Your task to perform on an android device: Search for "logitech g pro" on newegg.com, select the first entry, and add it to the cart. Image 0: 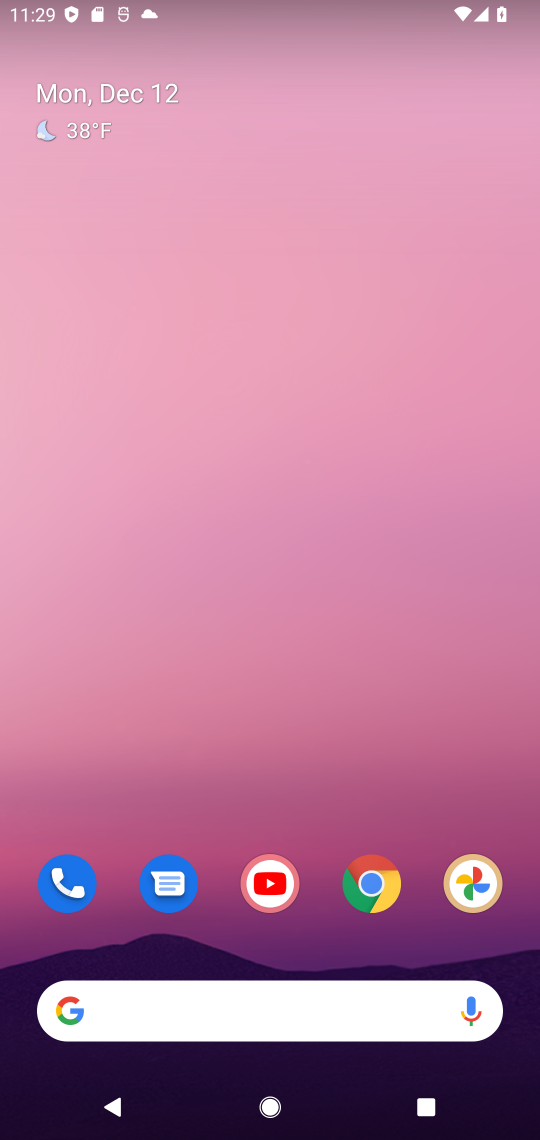
Step 0: click (295, 1015)
Your task to perform on an android device: Search for "logitech g pro" on newegg.com, select the first entry, and add it to the cart. Image 1: 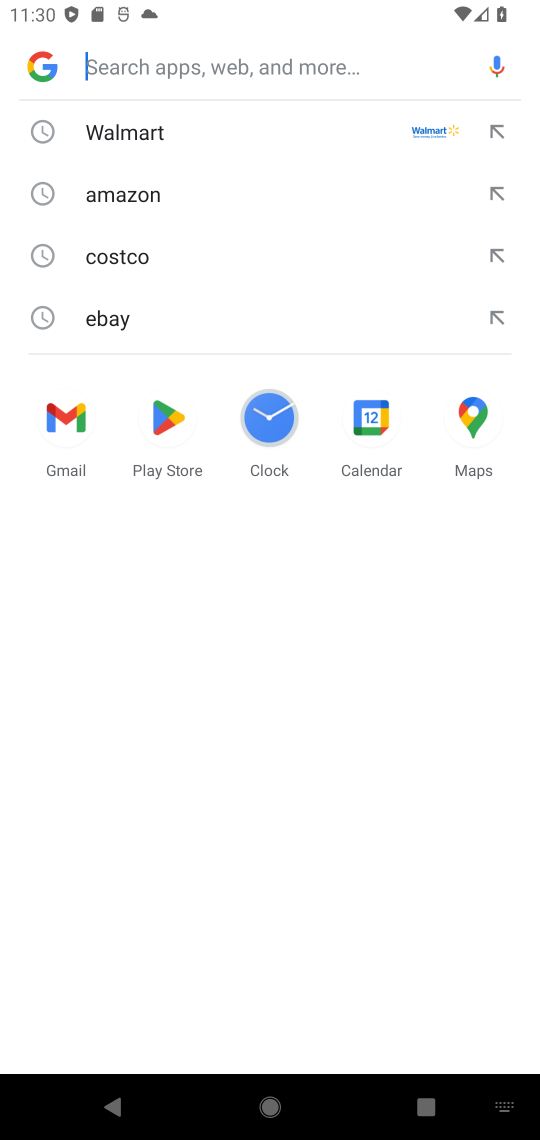
Step 1: press home button
Your task to perform on an android device: Search for "logitech g pro" on newegg.com, select the first entry, and add it to the cart. Image 2: 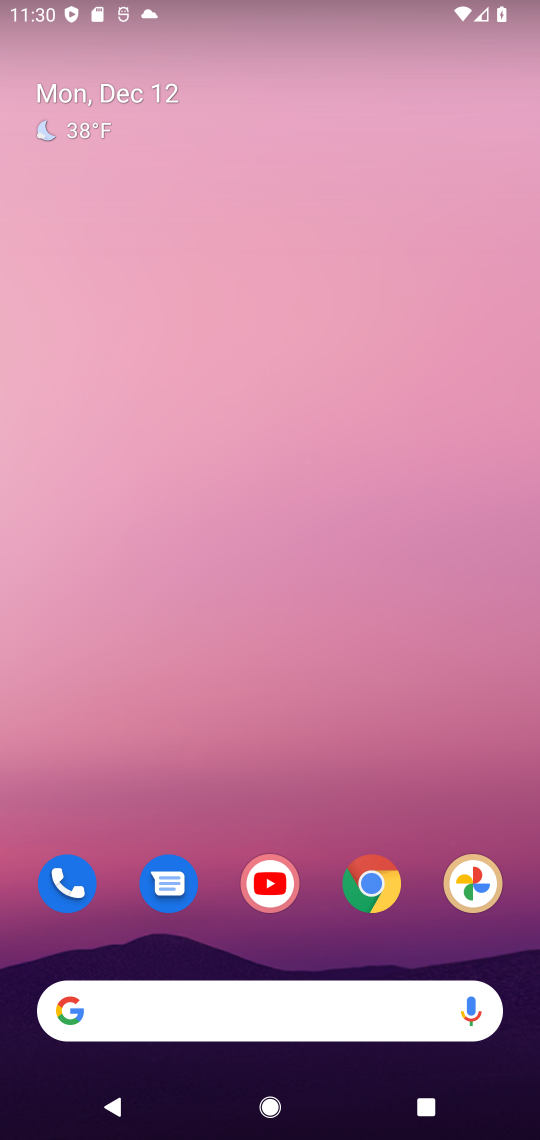
Step 2: drag from (207, 741) to (297, 36)
Your task to perform on an android device: Search for "logitech g pro" on newegg.com, select the first entry, and add it to the cart. Image 3: 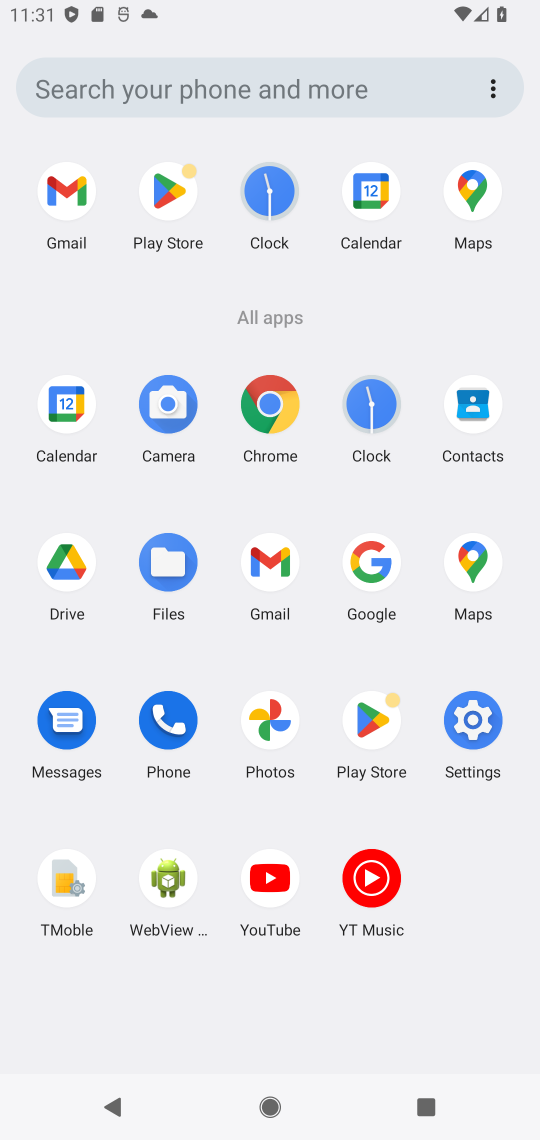
Step 3: click (352, 600)
Your task to perform on an android device: Search for "logitech g pro" on newegg.com, select the first entry, and add it to the cart. Image 4: 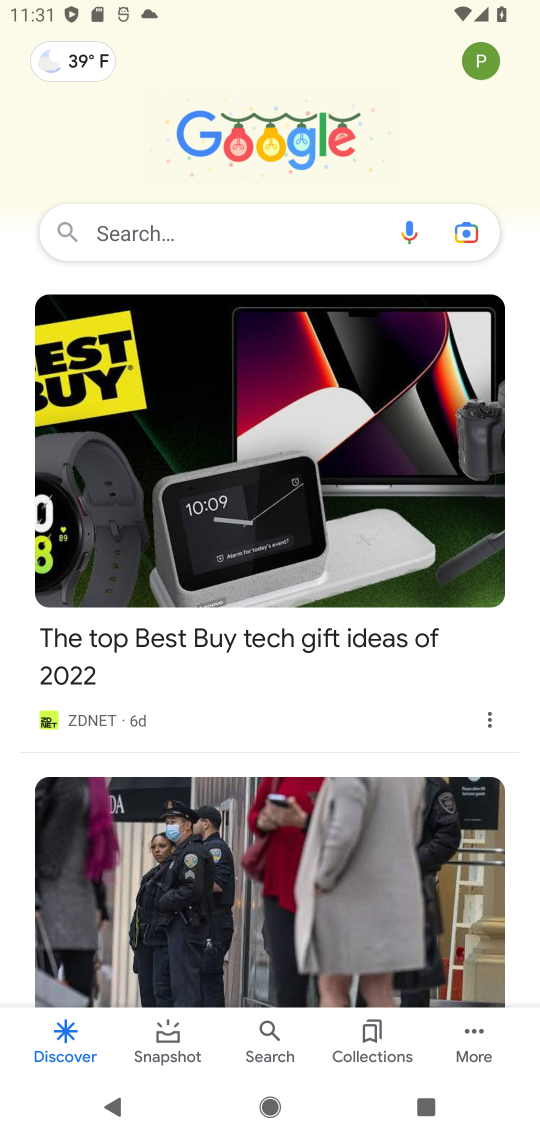
Step 4: click (253, 242)
Your task to perform on an android device: Search for "logitech g pro" on newegg.com, select the first entry, and add it to the cart. Image 5: 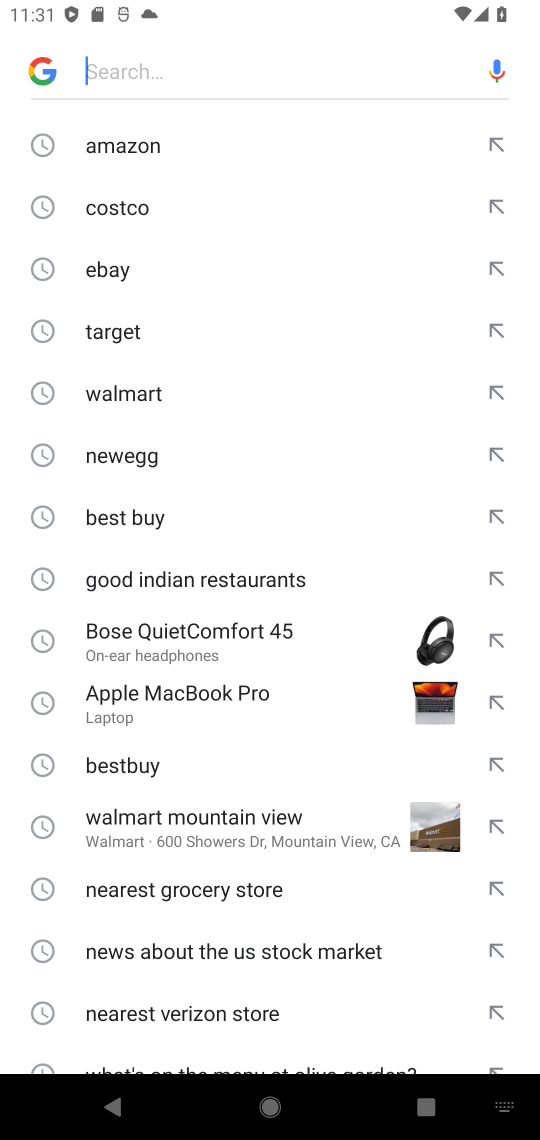
Step 5: type " newegg.com"
Your task to perform on an android device: Search for "logitech g pro" on newegg.com, select the first entry, and add it to the cart. Image 6: 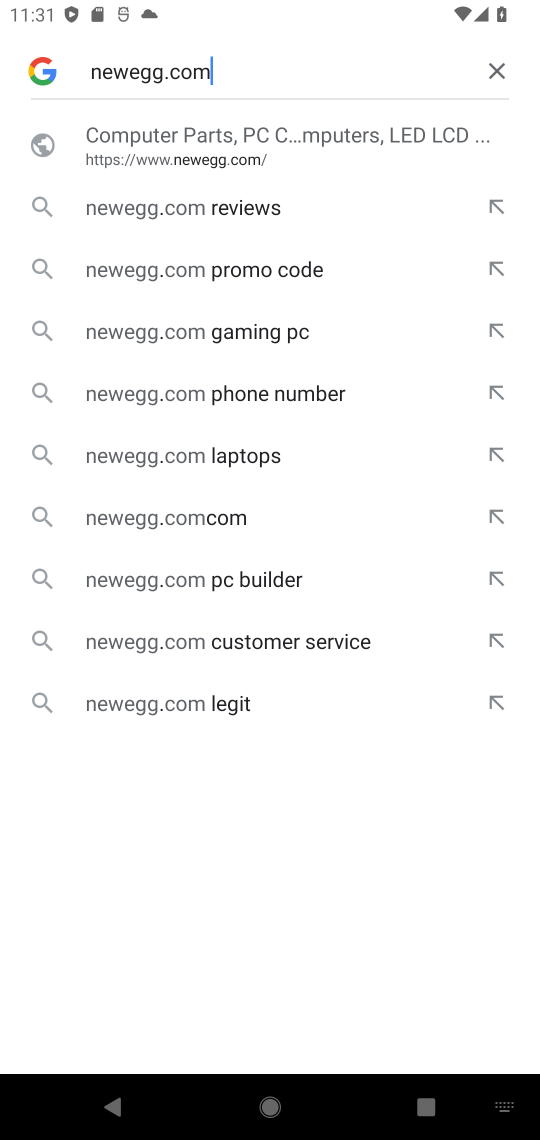
Step 6: click (223, 150)
Your task to perform on an android device: Search for "logitech g pro" on newegg.com, select the first entry, and add it to the cart. Image 7: 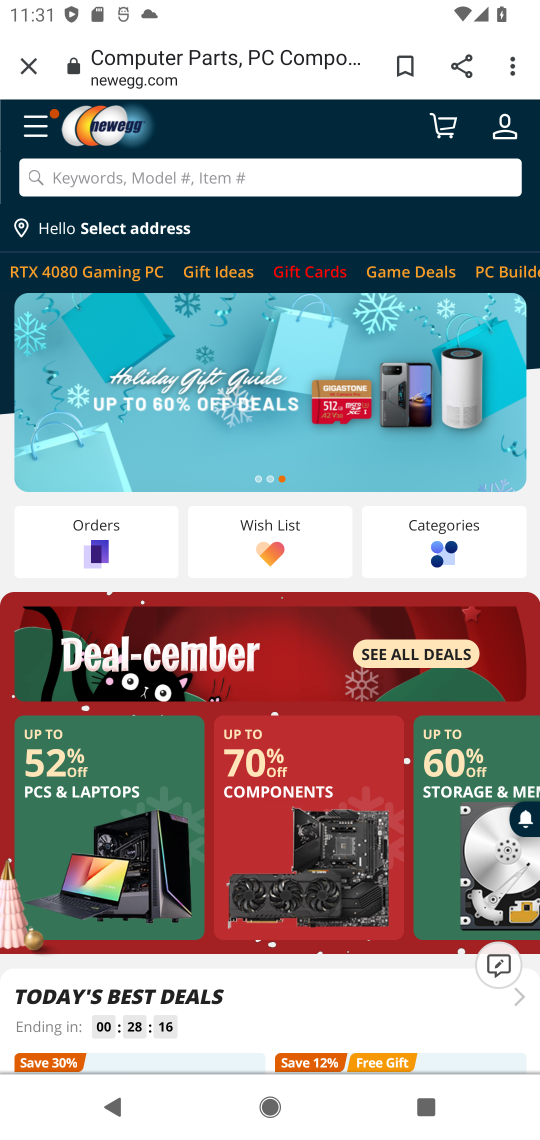
Step 7: click (190, 181)
Your task to perform on an android device: Search for "logitech g pro" on newegg.com, select the first entry, and add it to the cart. Image 8: 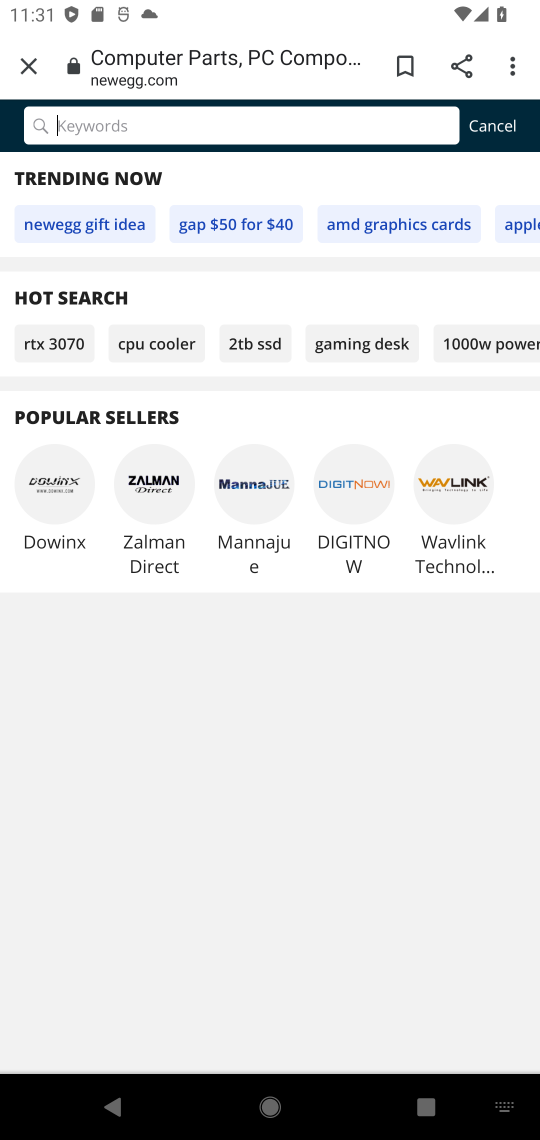
Step 8: type "logitech g pro"
Your task to perform on an android device: Search for "logitech g pro" on newegg.com, select the first entry, and add it to the cart. Image 9: 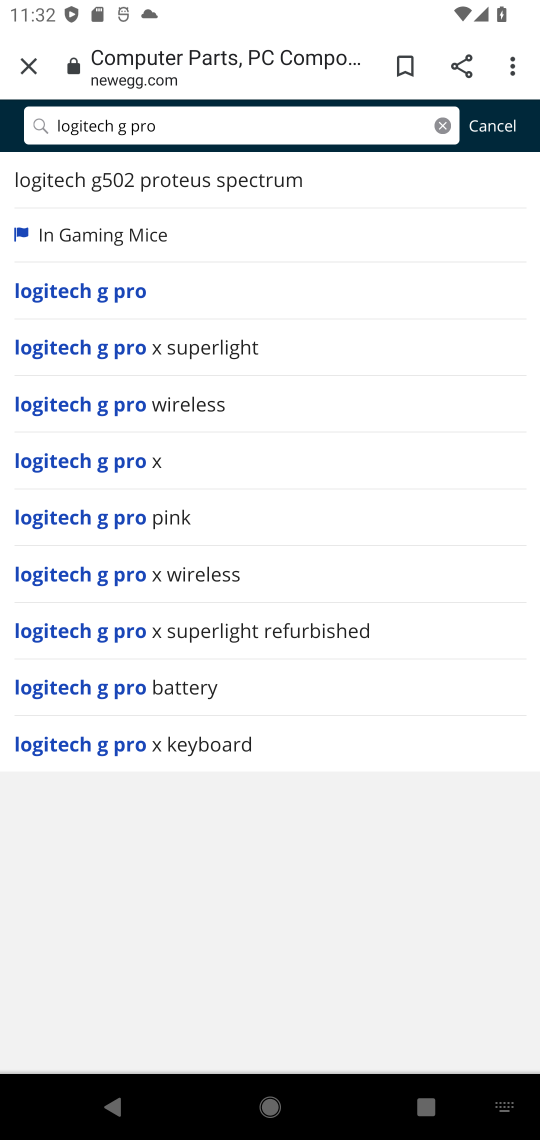
Step 9: click (82, 289)
Your task to perform on an android device: Search for "logitech g pro" on newegg.com, select the first entry, and add it to the cart. Image 10: 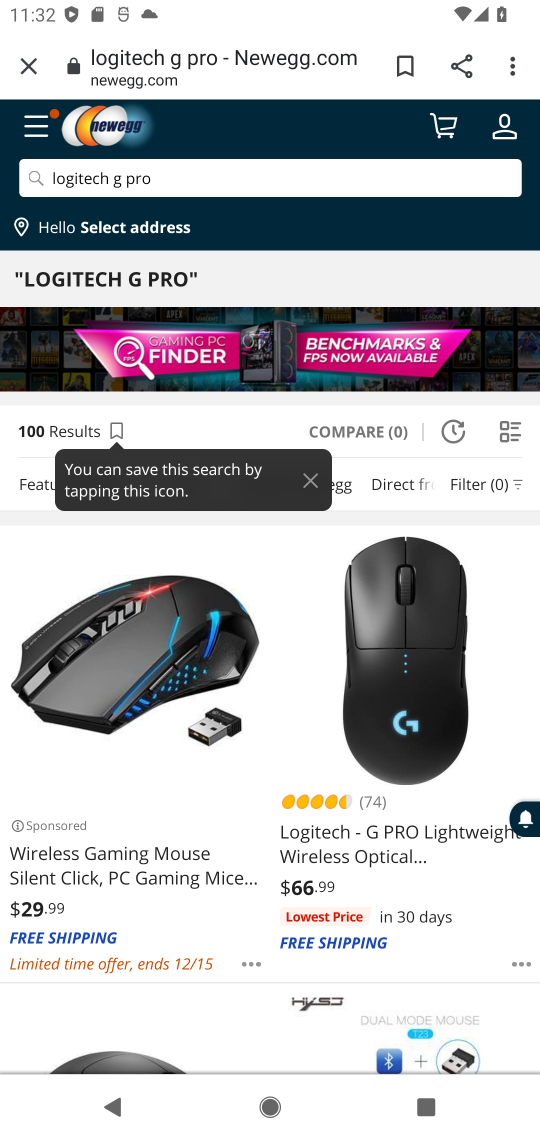
Step 10: click (94, 830)
Your task to perform on an android device: Search for "logitech g pro" on newegg.com, select the first entry, and add it to the cart. Image 11: 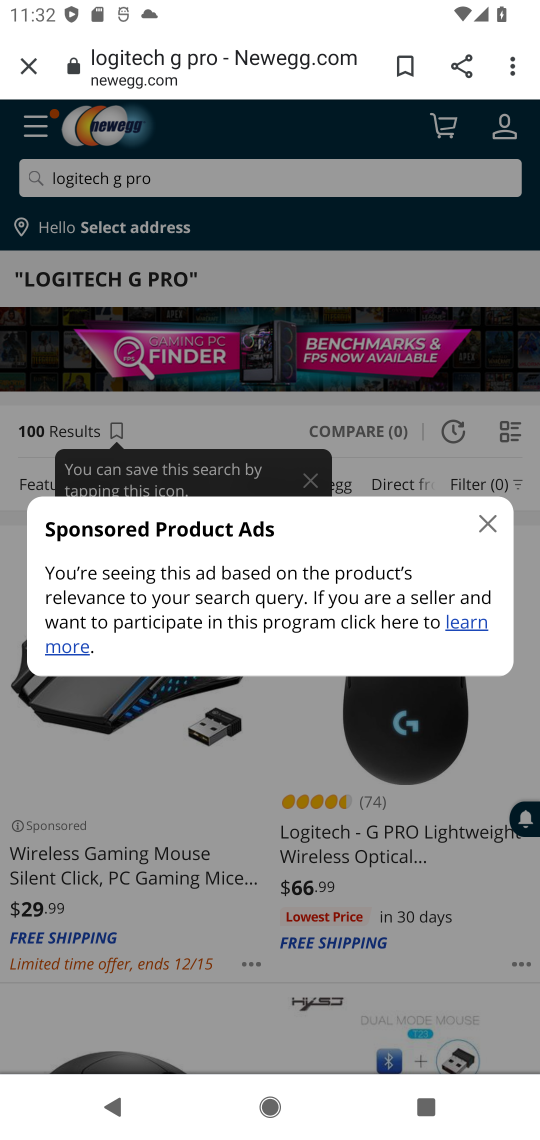
Step 11: click (492, 526)
Your task to perform on an android device: Search for "logitech g pro" on newegg.com, select the first entry, and add it to the cart. Image 12: 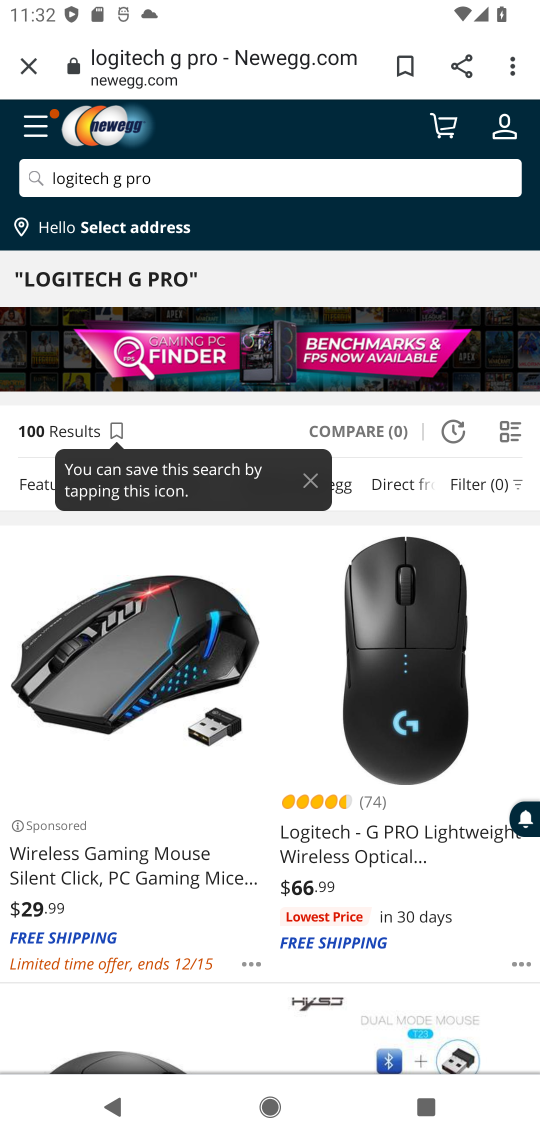
Step 12: click (124, 735)
Your task to perform on an android device: Search for "logitech g pro" on newegg.com, select the first entry, and add it to the cart. Image 13: 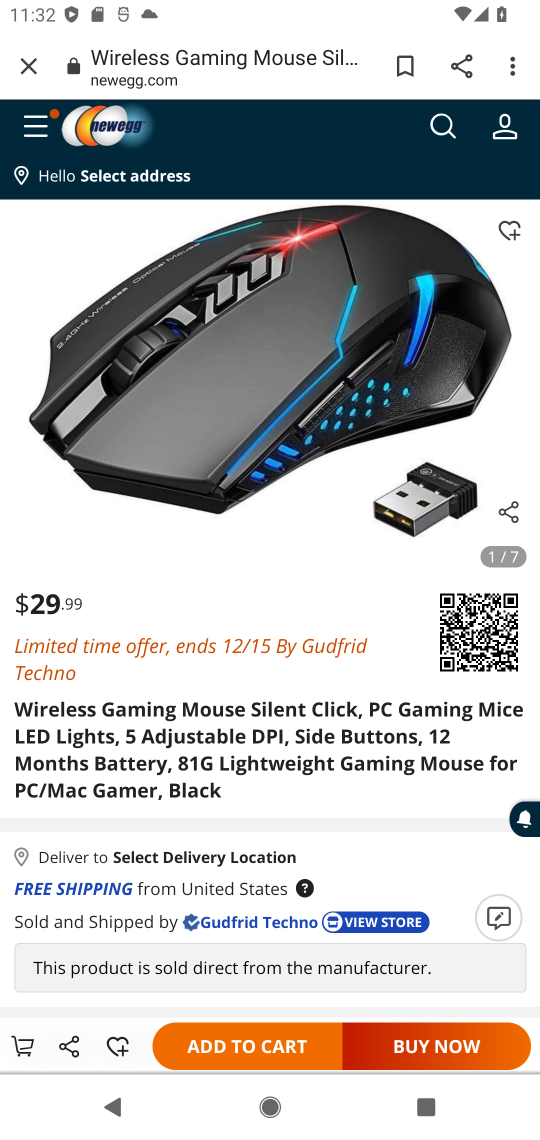
Step 13: click (246, 1037)
Your task to perform on an android device: Search for "logitech g pro" on newegg.com, select the first entry, and add it to the cart. Image 14: 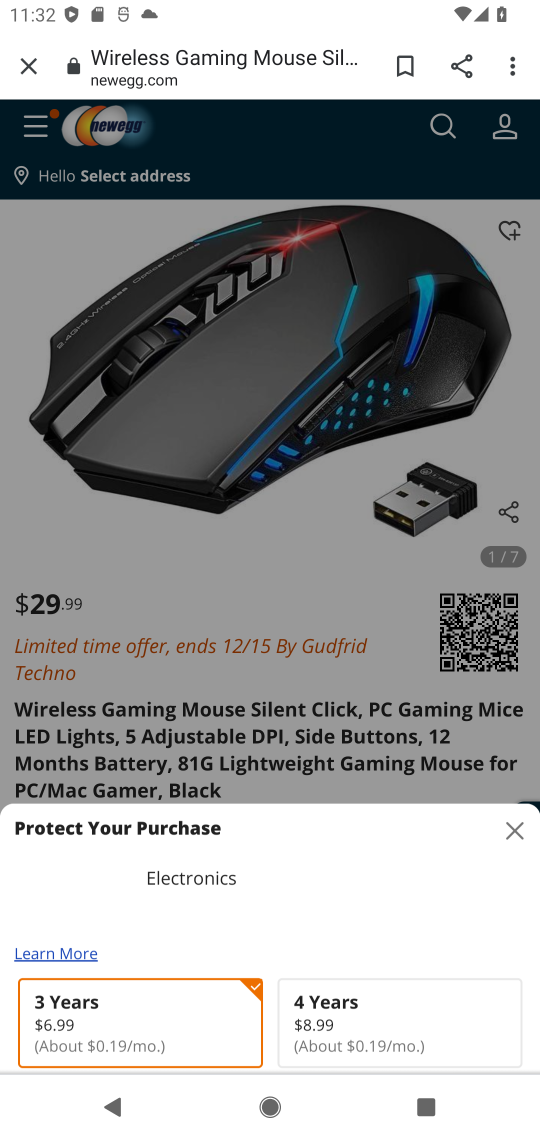
Step 14: task complete